Your task to perform on an android device: open app "Roku - Official Remote Control" Image 0: 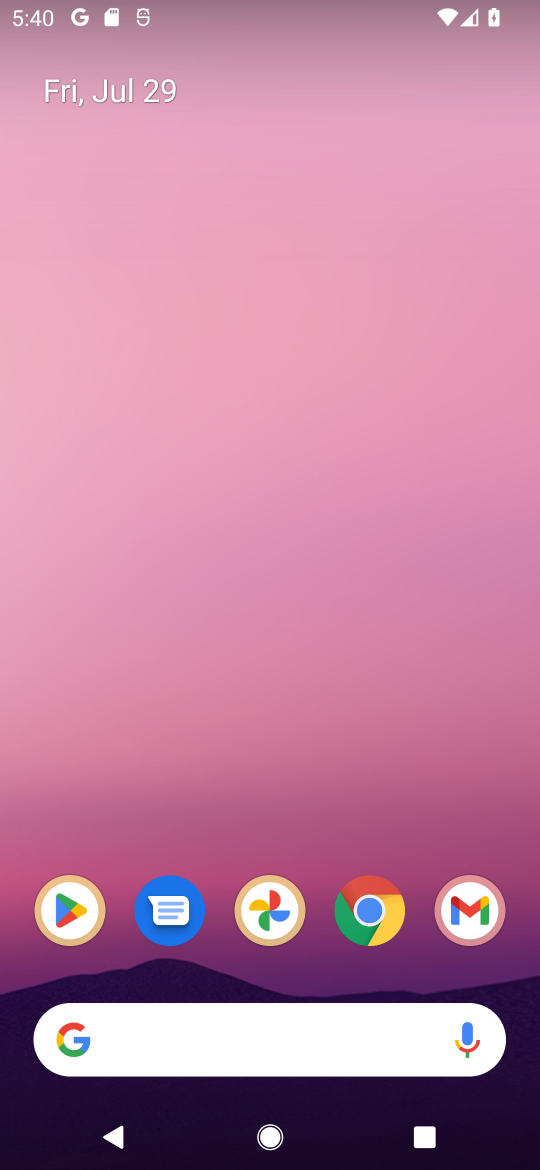
Step 0: click (72, 919)
Your task to perform on an android device: open app "Roku - Official Remote Control" Image 1: 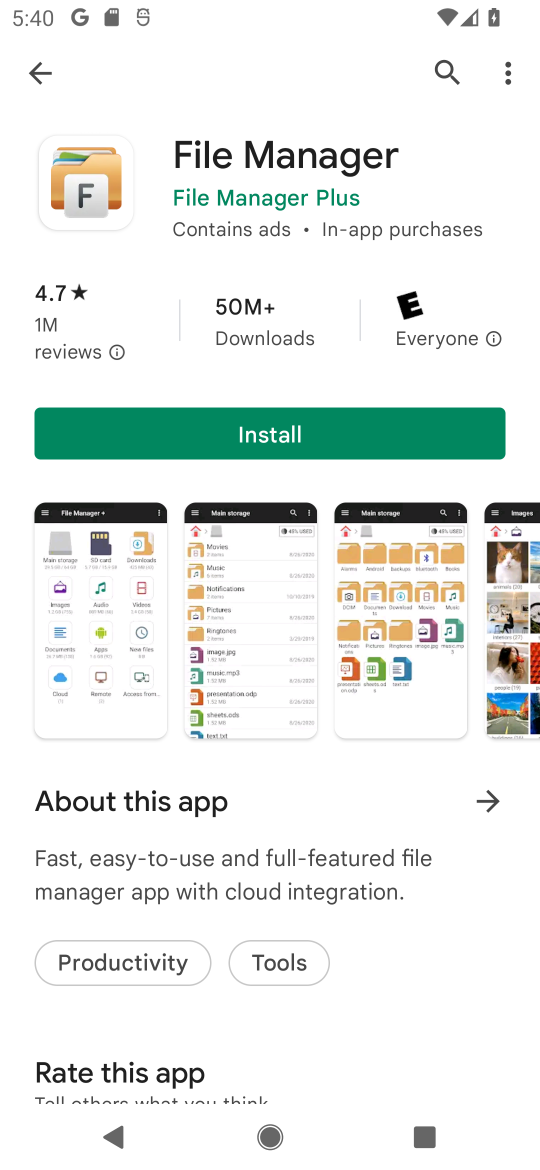
Step 1: click (457, 74)
Your task to perform on an android device: open app "Roku - Official Remote Control" Image 2: 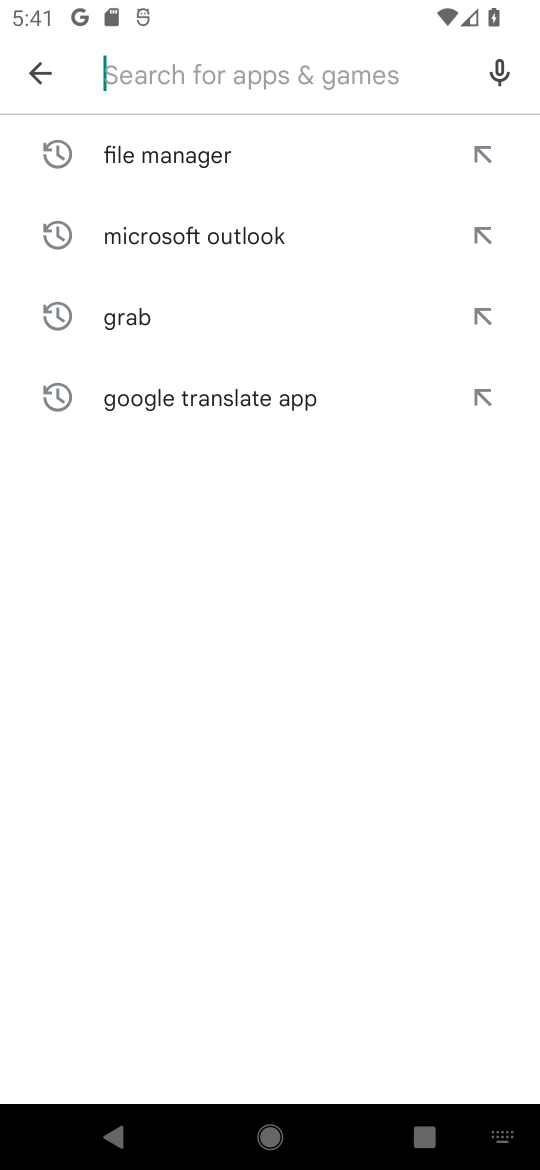
Step 2: type "roku - official remote control"
Your task to perform on an android device: open app "Roku - Official Remote Control" Image 3: 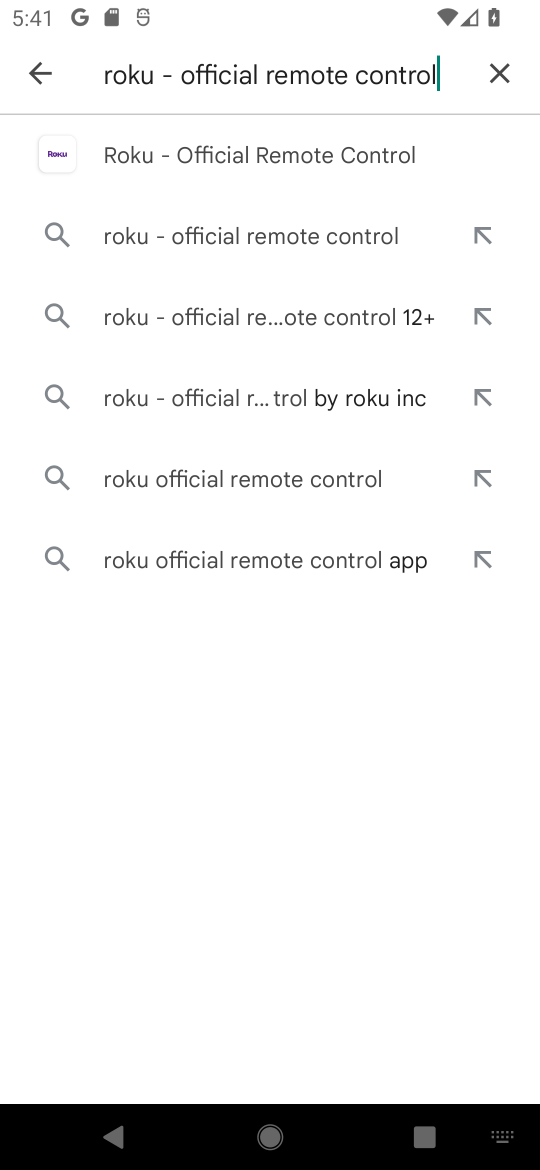
Step 3: click (363, 148)
Your task to perform on an android device: open app "Roku - Official Remote Control" Image 4: 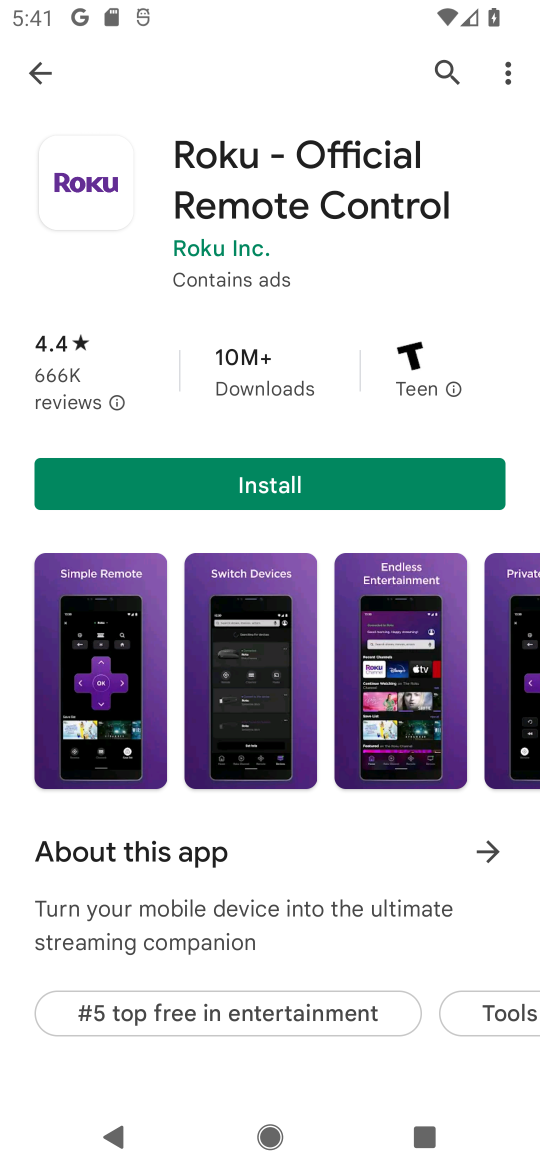
Step 4: task complete